Your task to perform on an android device: add a contact Image 0: 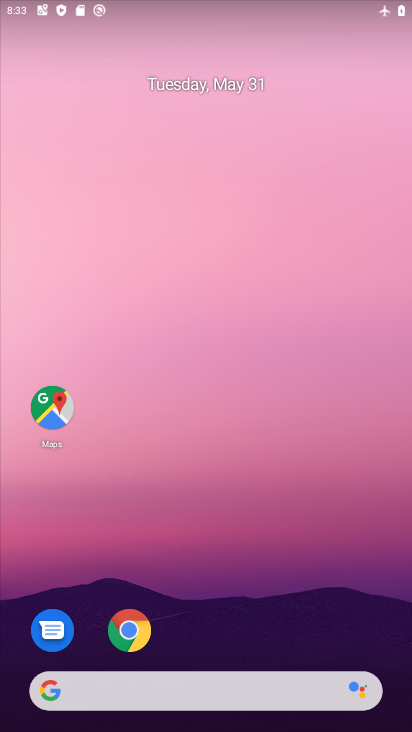
Step 0: drag from (175, 604) to (173, 465)
Your task to perform on an android device: add a contact Image 1: 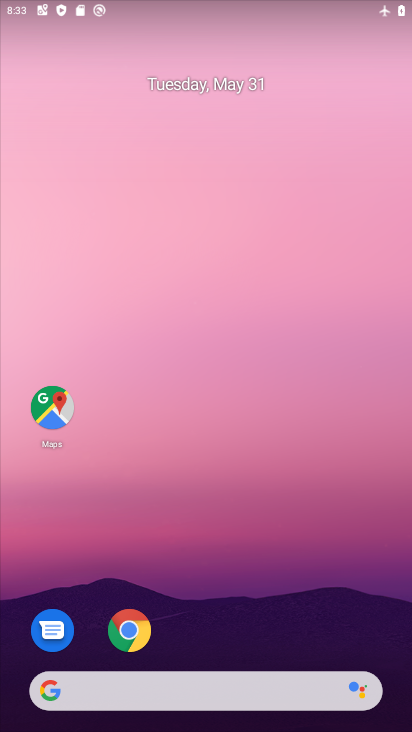
Step 1: drag from (192, 652) to (272, 180)
Your task to perform on an android device: add a contact Image 2: 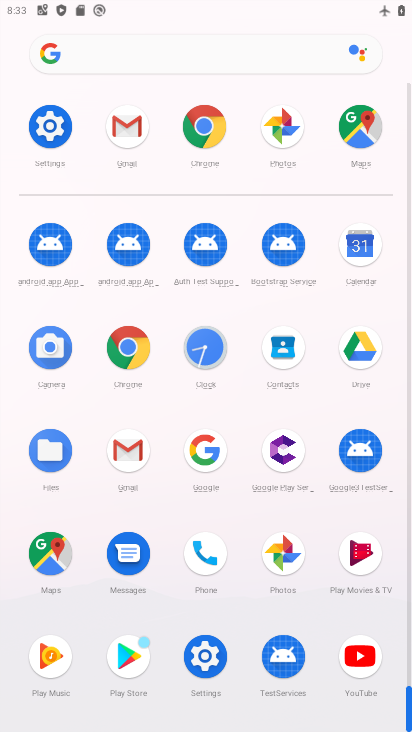
Step 2: click (196, 553)
Your task to perform on an android device: add a contact Image 3: 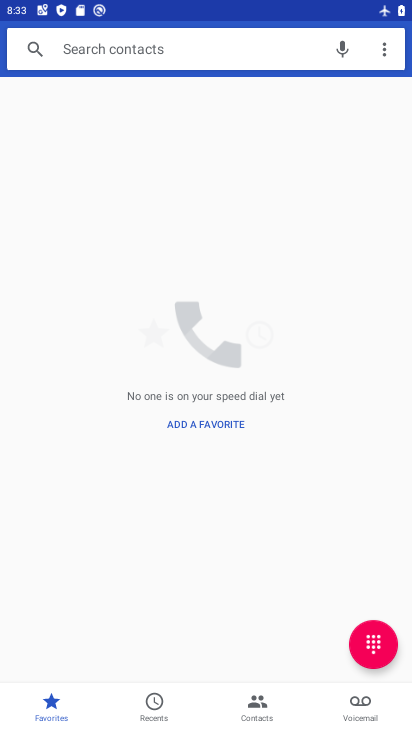
Step 3: click (171, 416)
Your task to perform on an android device: add a contact Image 4: 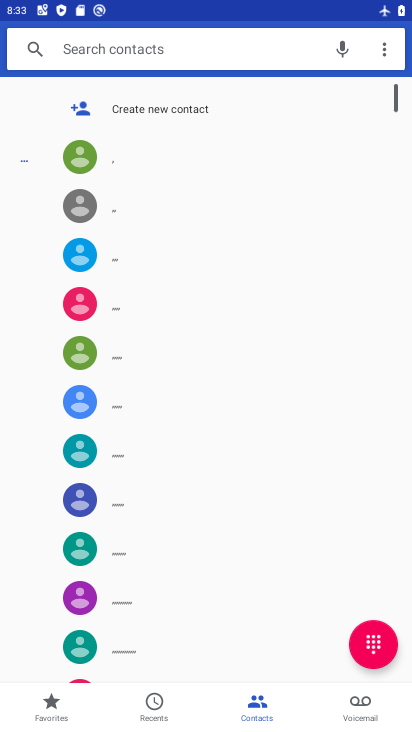
Step 4: click (151, 101)
Your task to perform on an android device: add a contact Image 5: 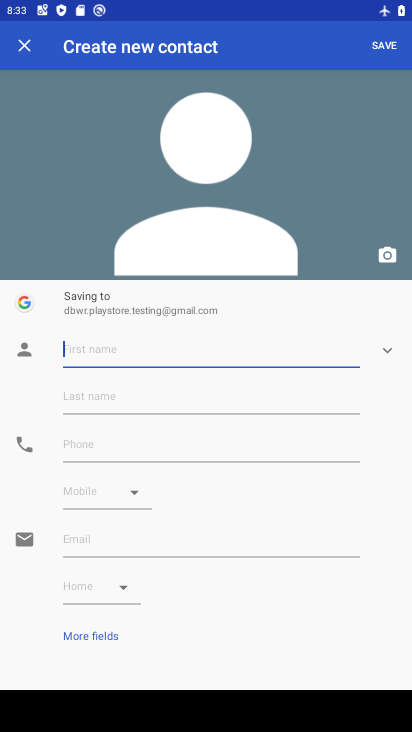
Step 5: click (141, 354)
Your task to perform on an android device: add a contact Image 6: 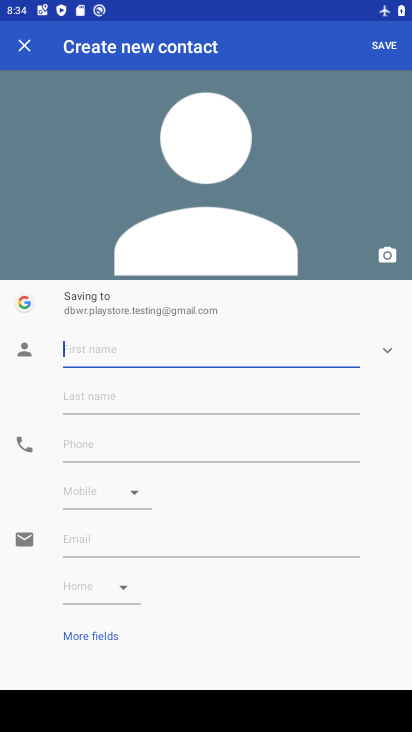
Step 6: type "prabhat shuklla"
Your task to perform on an android device: add a contact Image 7: 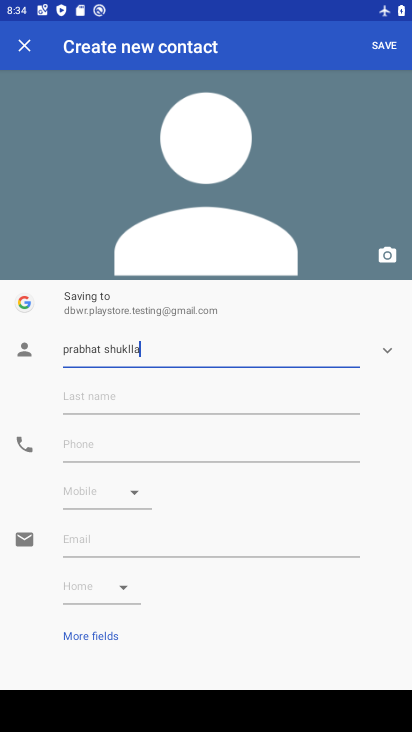
Step 7: click (169, 449)
Your task to perform on an android device: add a contact Image 8: 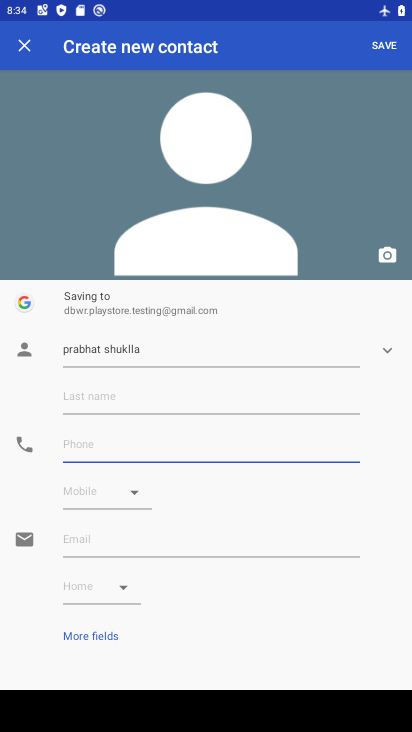
Step 8: type "0918237356454"
Your task to perform on an android device: add a contact Image 9: 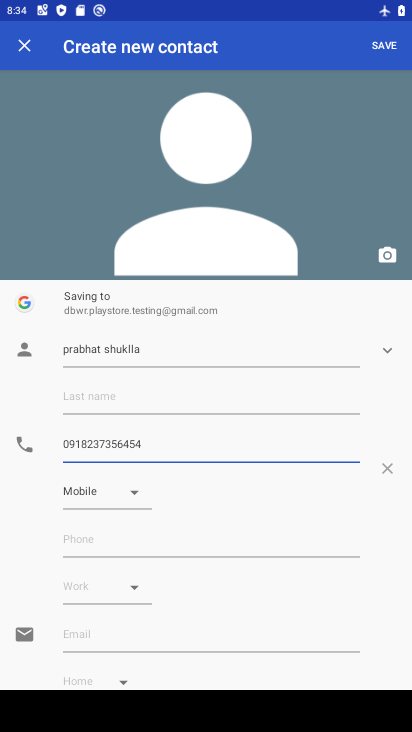
Step 9: click (393, 42)
Your task to perform on an android device: add a contact Image 10: 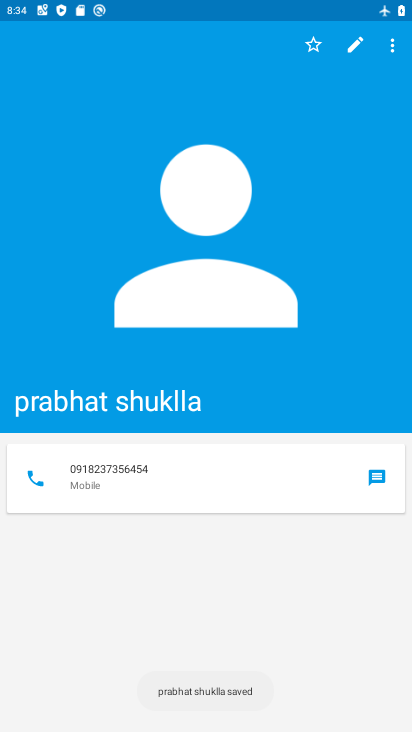
Step 10: task complete